Your task to perform on an android device: change the clock display to analog Image 0: 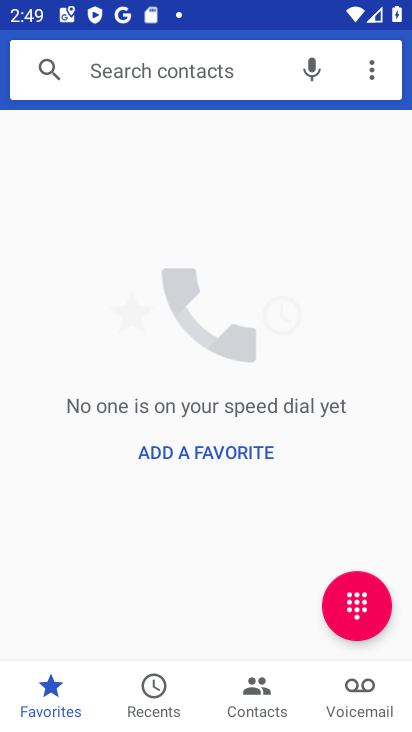
Step 0: press back button
Your task to perform on an android device: change the clock display to analog Image 1: 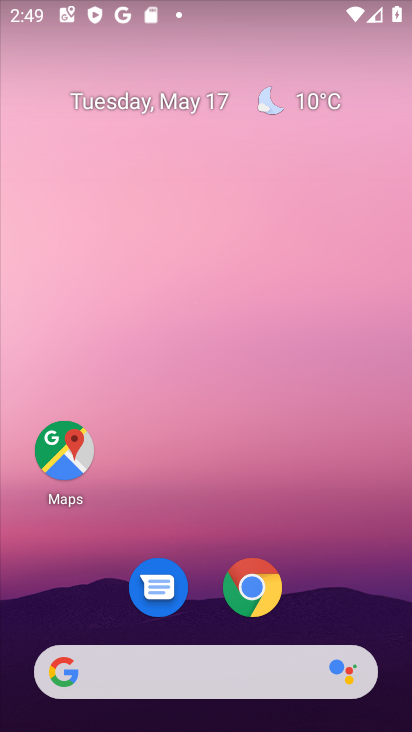
Step 1: drag from (333, 525) to (270, 35)
Your task to perform on an android device: change the clock display to analog Image 2: 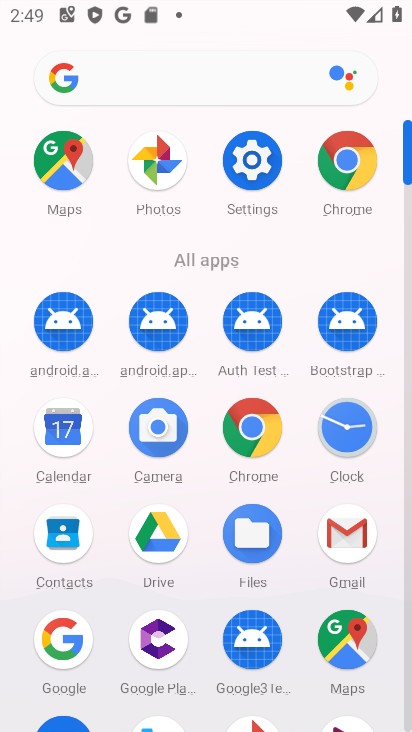
Step 2: click (343, 420)
Your task to perform on an android device: change the clock display to analog Image 3: 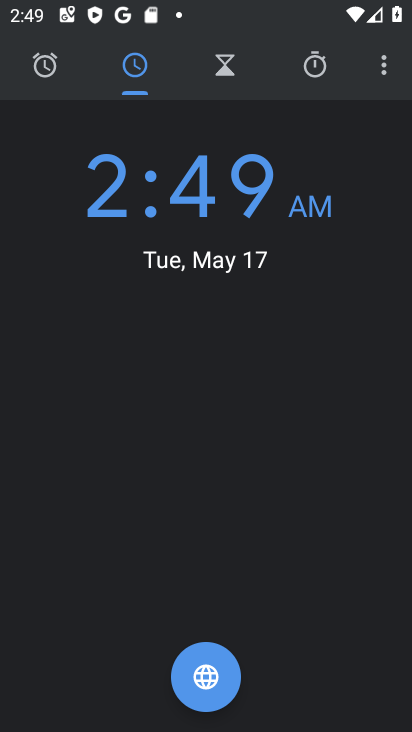
Step 3: drag from (382, 71) to (289, 123)
Your task to perform on an android device: change the clock display to analog Image 4: 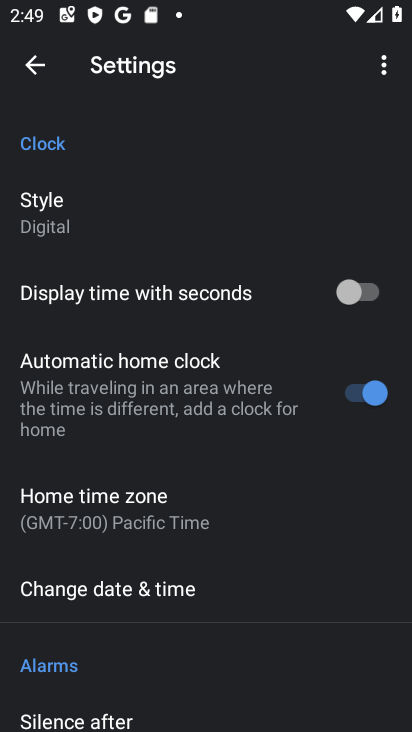
Step 4: drag from (197, 544) to (197, 199)
Your task to perform on an android device: change the clock display to analog Image 5: 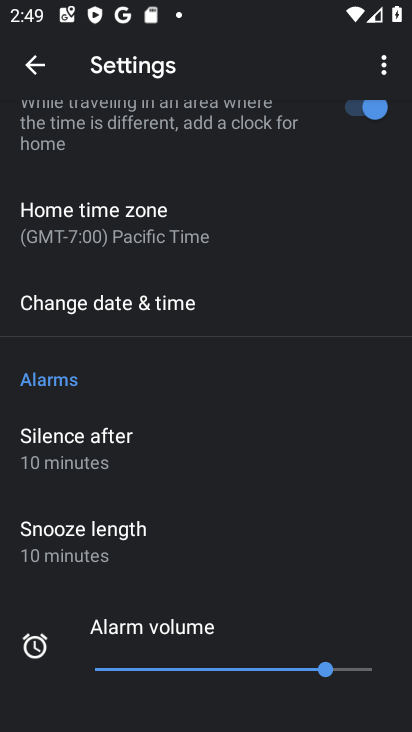
Step 5: drag from (205, 530) to (205, 177)
Your task to perform on an android device: change the clock display to analog Image 6: 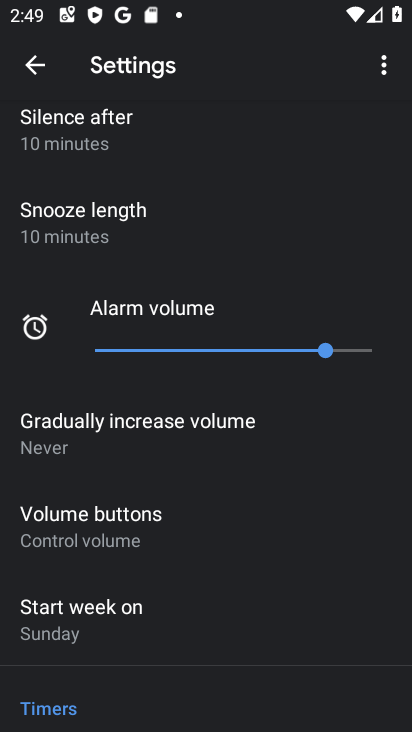
Step 6: drag from (235, 507) to (235, 142)
Your task to perform on an android device: change the clock display to analog Image 7: 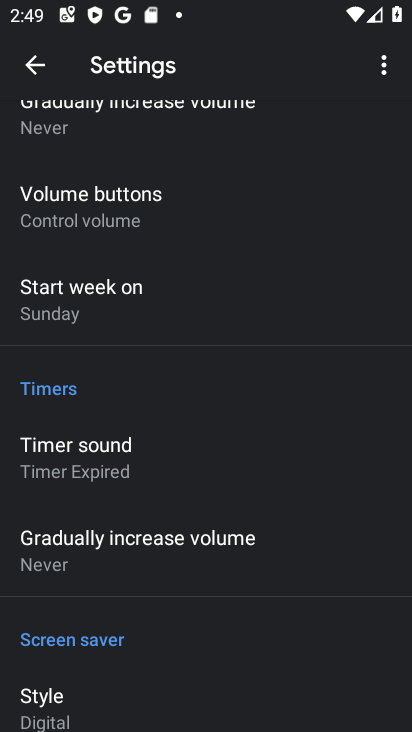
Step 7: drag from (212, 250) to (174, 630)
Your task to perform on an android device: change the clock display to analog Image 8: 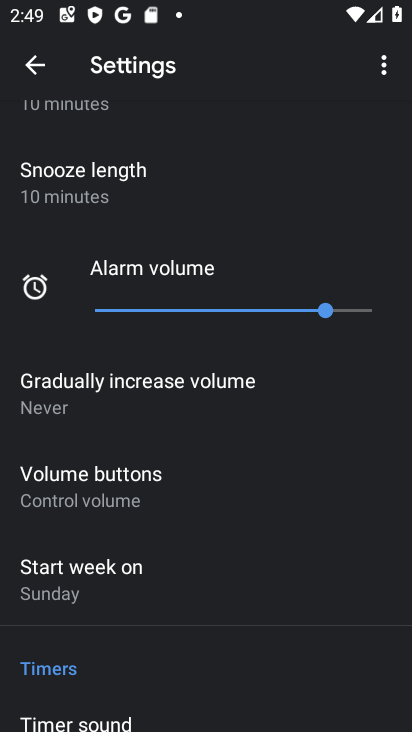
Step 8: drag from (178, 144) to (191, 622)
Your task to perform on an android device: change the clock display to analog Image 9: 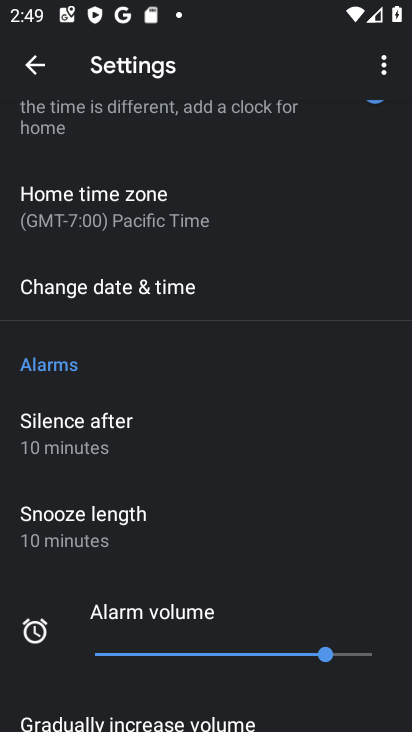
Step 9: drag from (178, 170) to (235, 562)
Your task to perform on an android device: change the clock display to analog Image 10: 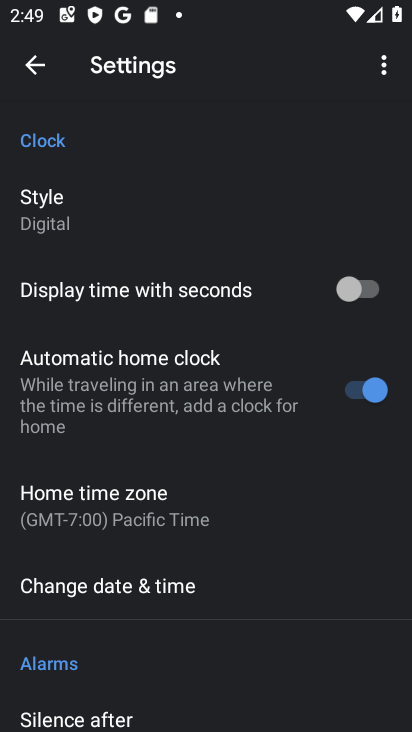
Step 10: drag from (187, 224) to (186, 597)
Your task to perform on an android device: change the clock display to analog Image 11: 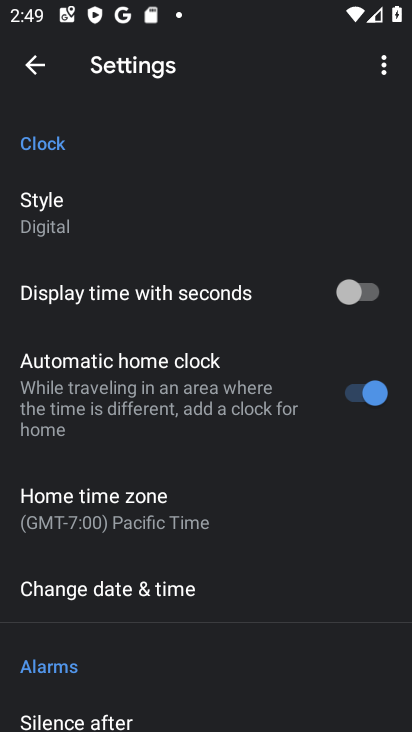
Step 11: drag from (185, 201) to (181, 578)
Your task to perform on an android device: change the clock display to analog Image 12: 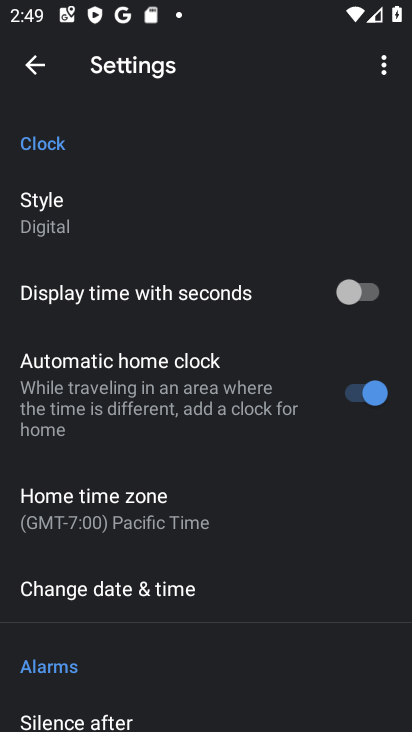
Step 12: click (120, 215)
Your task to perform on an android device: change the clock display to analog Image 13: 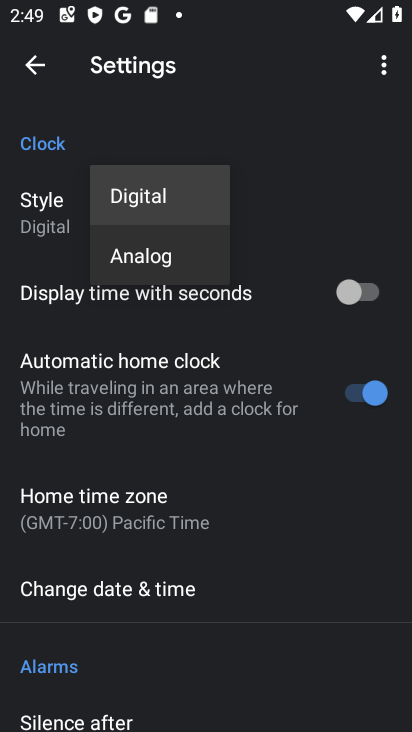
Step 13: click (164, 269)
Your task to perform on an android device: change the clock display to analog Image 14: 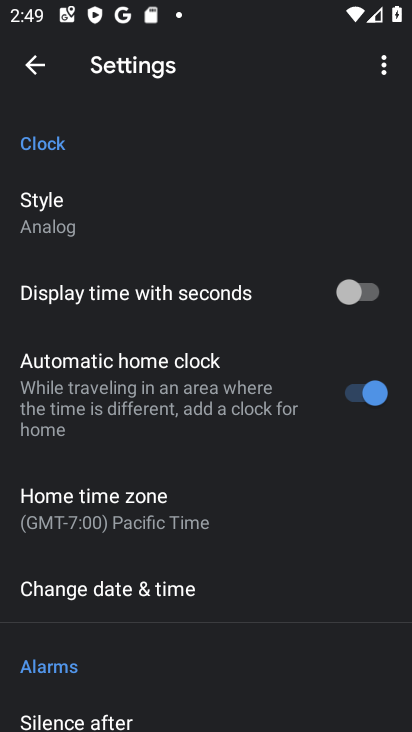
Step 14: task complete